Your task to perform on an android device: turn vacation reply on in the gmail app Image 0: 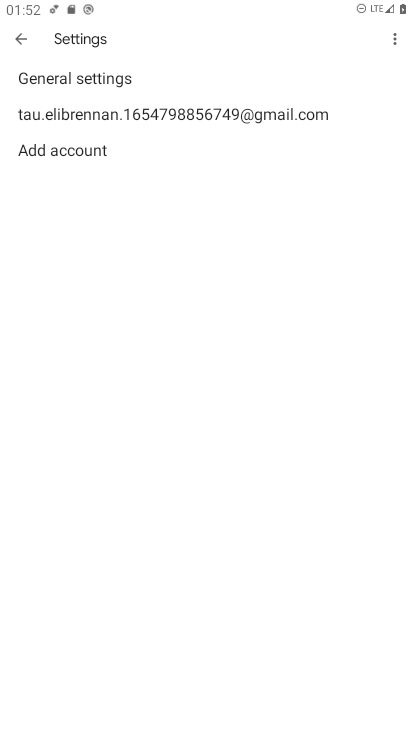
Step 0: press home button
Your task to perform on an android device: turn vacation reply on in the gmail app Image 1: 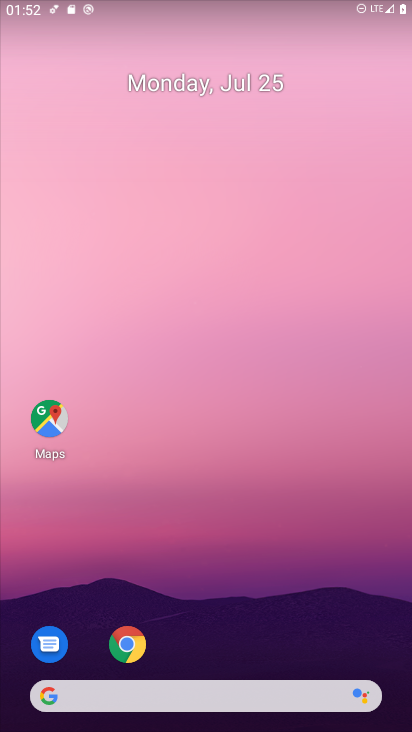
Step 1: drag from (216, 728) to (203, 247)
Your task to perform on an android device: turn vacation reply on in the gmail app Image 2: 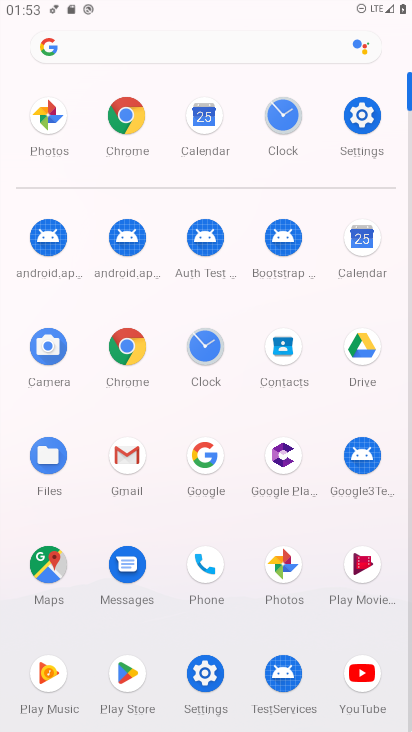
Step 2: click (135, 454)
Your task to perform on an android device: turn vacation reply on in the gmail app Image 3: 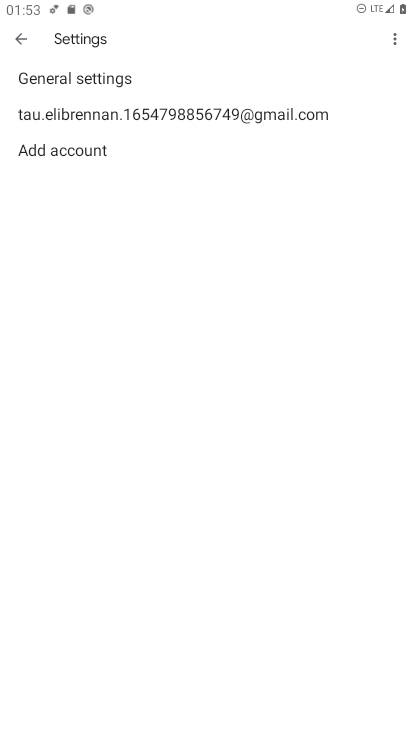
Step 3: click (127, 113)
Your task to perform on an android device: turn vacation reply on in the gmail app Image 4: 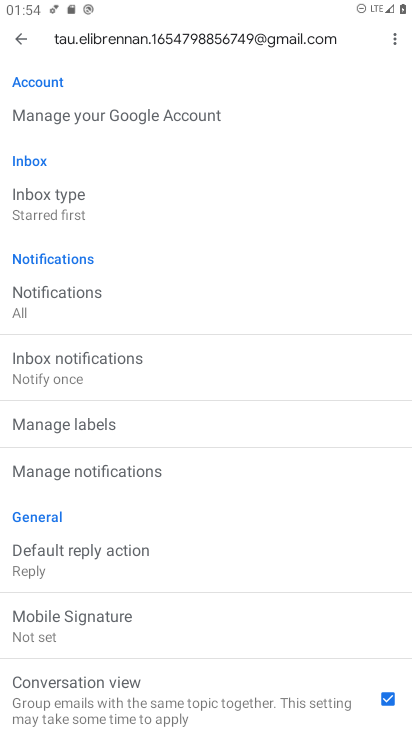
Step 4: drag from (169, 680) to (162, 412)
Your task to perform on an android device: turn vacation reply on in the gmail app Image 5: 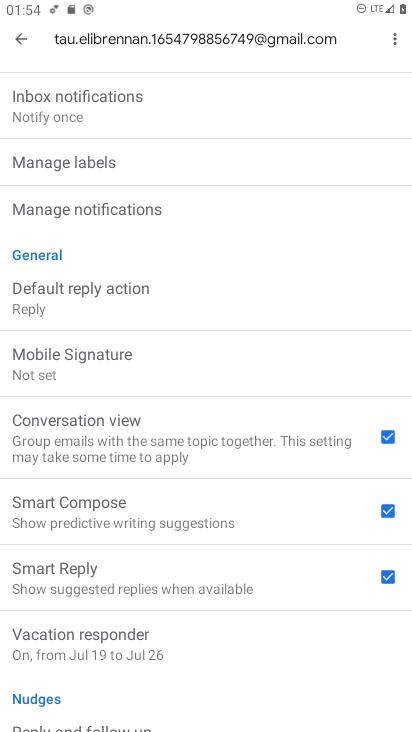
Step 5: click (159, 646)
Your task to perform on an android device: turn vacation reply on in the gmail app Image 6: 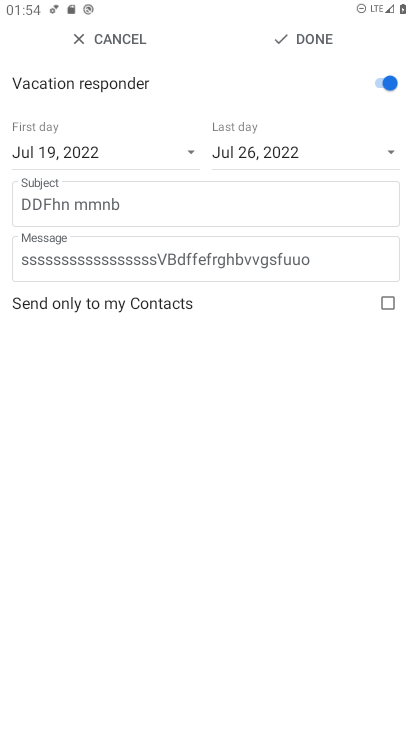
Step 6: task complete